Your task to perform on an android device: Open Chrome and go to the settings page Image 0: 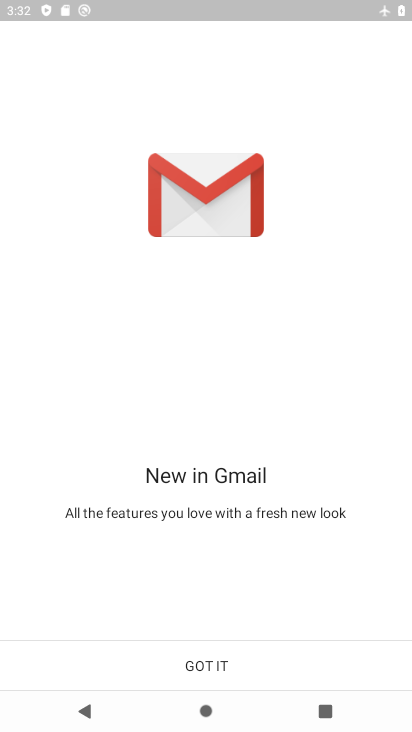
Step 0: press home button
Your task to perform on an android device: Open Chrome and go to the settings page Image 1: 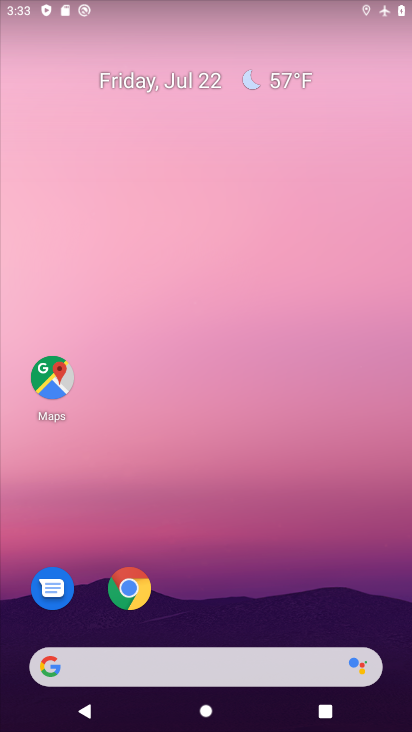
Step 1: click (138, 598)
Your task to perform on an android device: Open Chrome and go to the settings page Image 2: 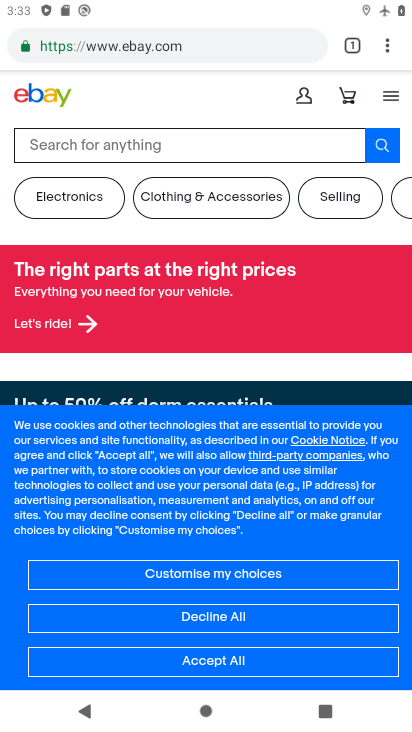
Step 2: task complete